Your task to perform on an android device: Open display settings Image 0: 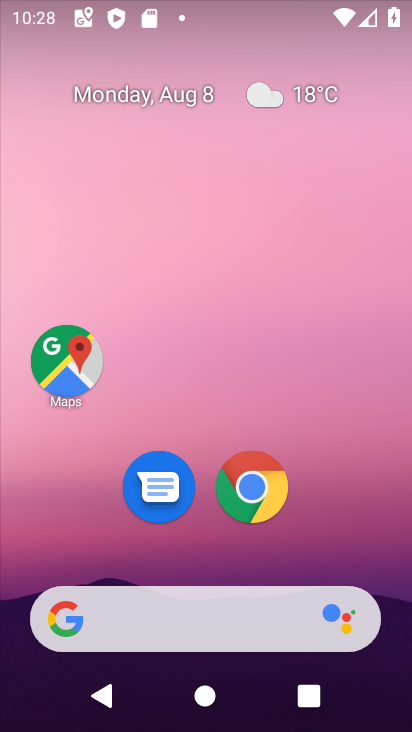
Step 0: drag from (209, 569) to (198, 56)
Your task to perform on an android device: Open display settings Image 1: 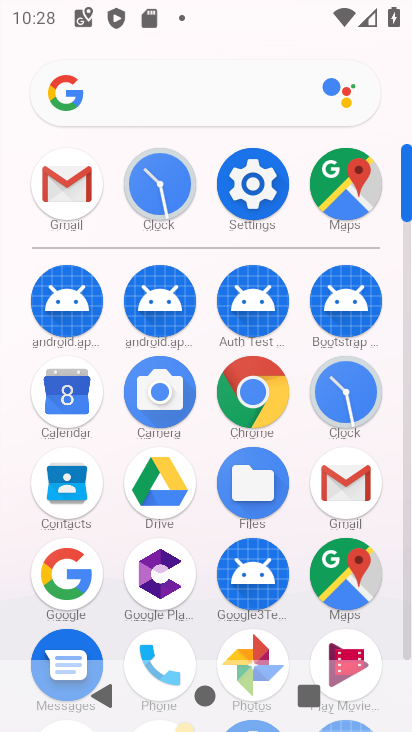
Step 1: click (253, 183)
Your task to perform on an android device: Open display settings Image 2: 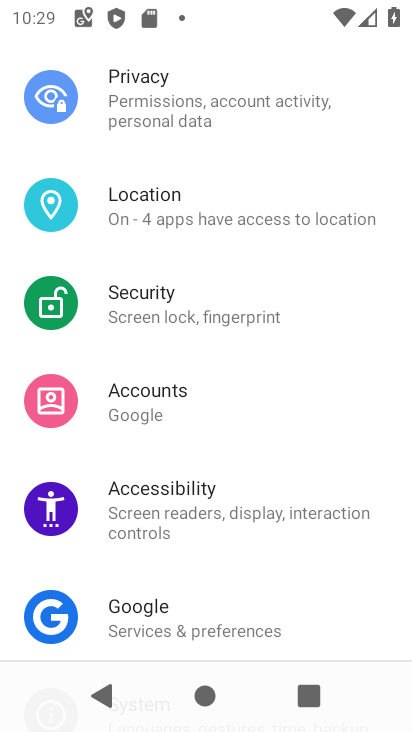
Step 2: drag from (166, 92) to (170, 472)
Your task to perform on an android device: Open display settings Image 3: 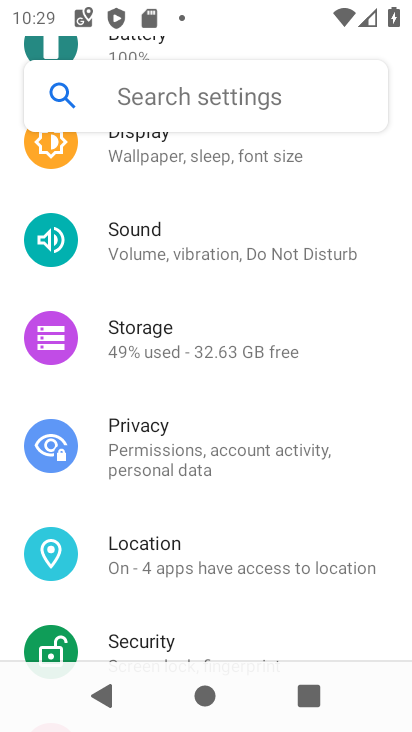
Step 3: click (145, 156)
Your task to perform on an android device: Open display settings Image 4: 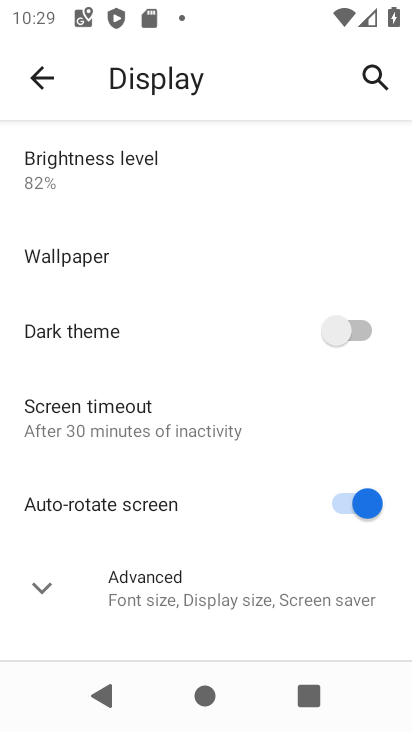
Step 4: task complete